Your task to perform on an android device: open sync settings in chrome Image 0: 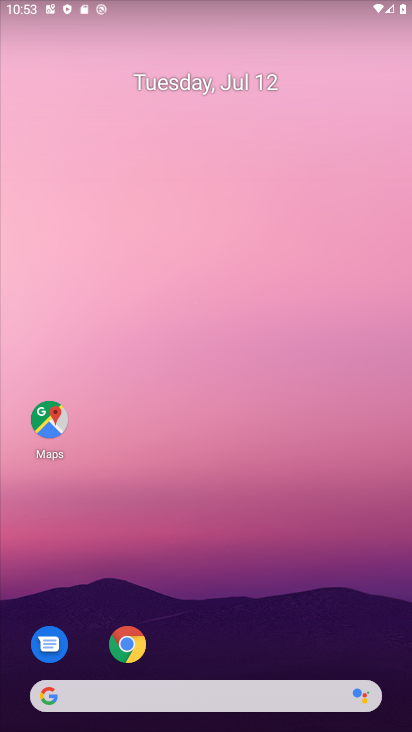
Step 0: click (287, 42)
Your task to perform on an android device: open sync settings in chrome Image 1: 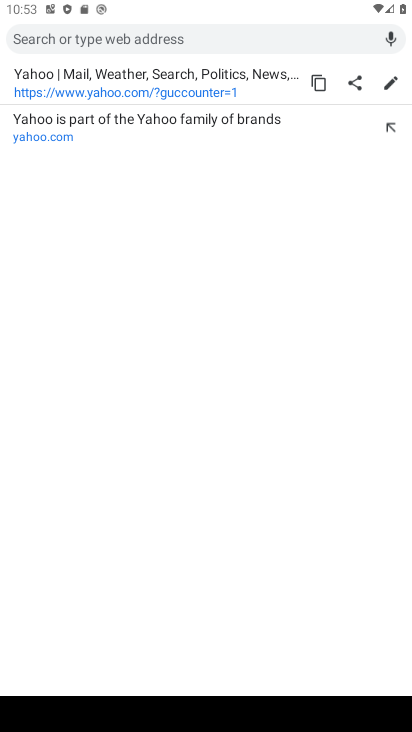
Step 1: press home button
Your task to perform on an android device: open sync settings in chrome Image 2: 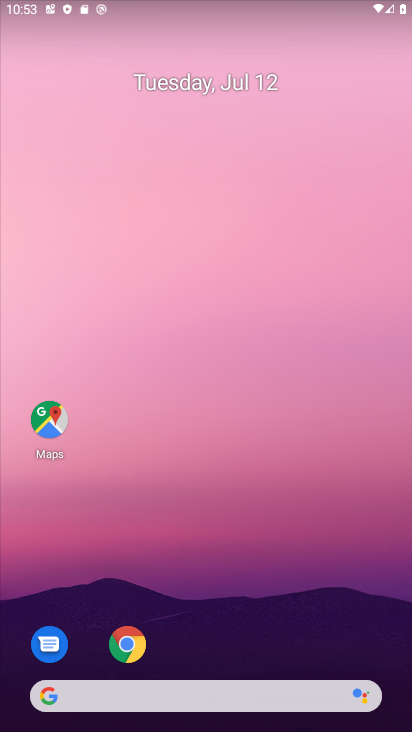
Step 2: click (121, 637)
Your task to perform on an android device: open sync settings in chrome Image 3: 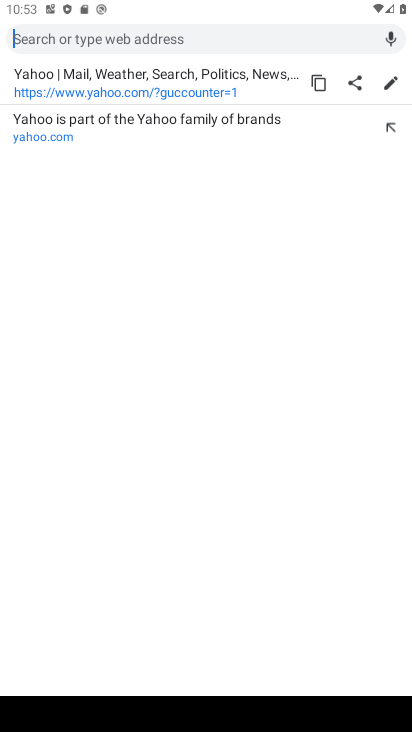
Step 3: press back button
Your task to perform on an android device: open sync settings in chrome Image 4: 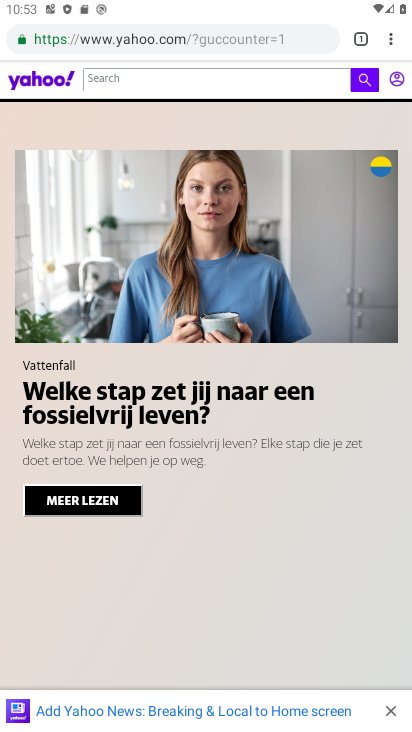
Step 4: click (393, 26)
Your task to perform on an android device: open sync settings in chrome Image 5: 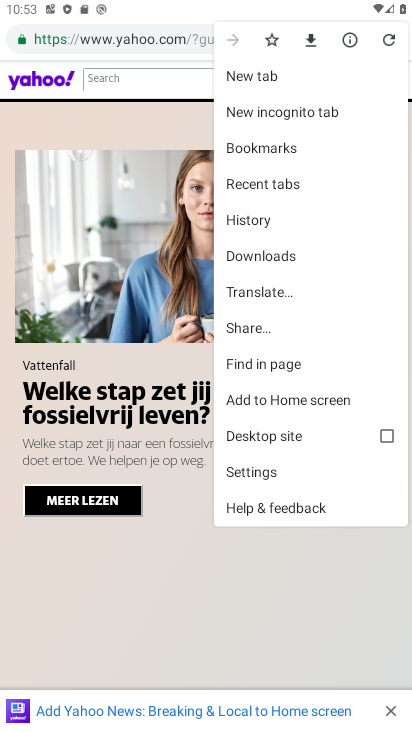
Step 5: click (279, 471)
Your task to perform on an android device: open sync settings in chrome Image 6: 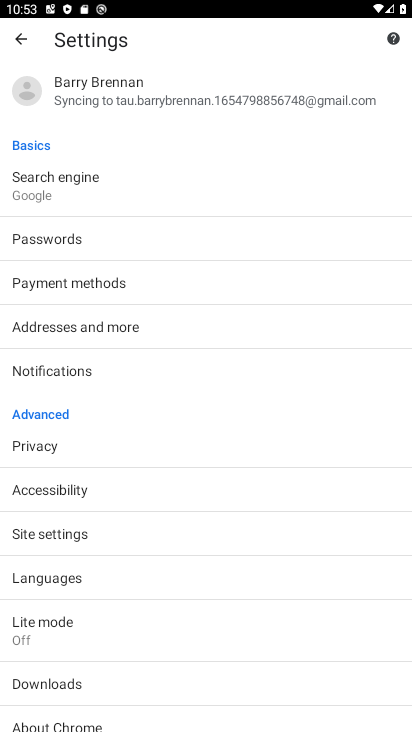
Step 6: click (194, 86)
Your task to perform on an android device: open sync settings in chrome Image 7: 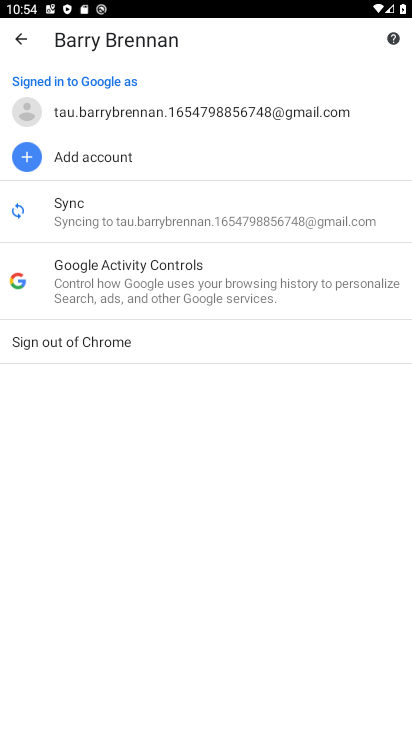
Step 7: click (96, 203)
Your task to perform on an android device: open sync settings in chrome Image 8: 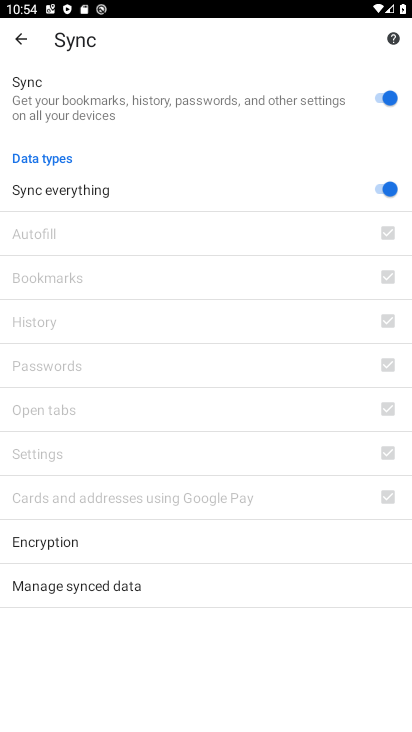
Step 8: task complete